Your task to perform on an android device: change alarm snooze length Image 0: 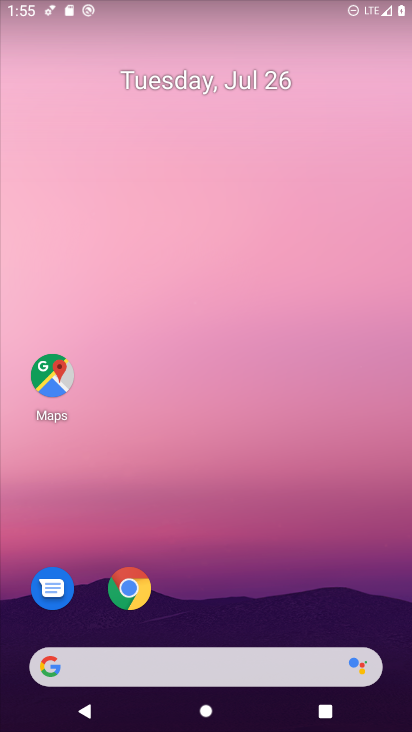
Step 0: drag from (228, 629) to (206, 176)
Your task to perform on an android device: change alarm snooze length Image 1: 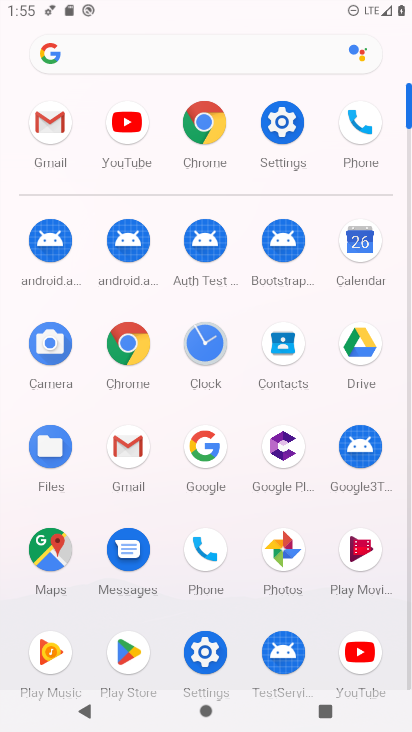
Step 1: click (207, 363)
Your task to perform on an android device: change alarm snooze length Image 2: 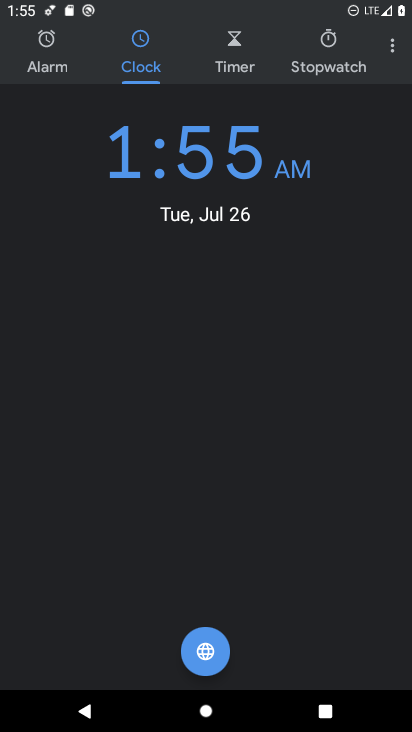
Step 2: click (386, 34)
Your task to perform on an android device: change alarm snooze length Image 3: 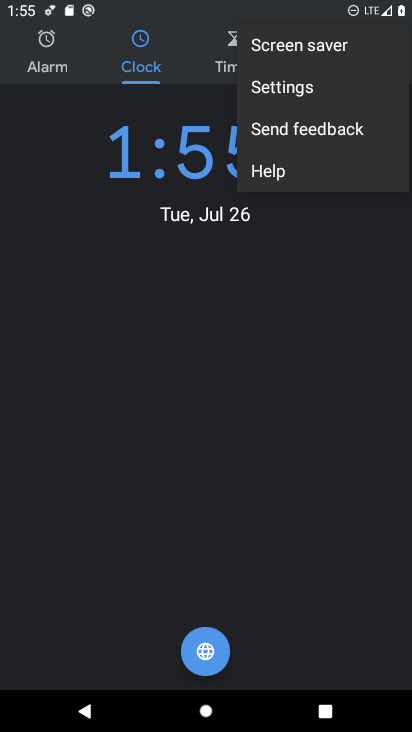
Step 3: click (296, 90)
Your task to perform on an android device: change alarm snooze length Image 4: 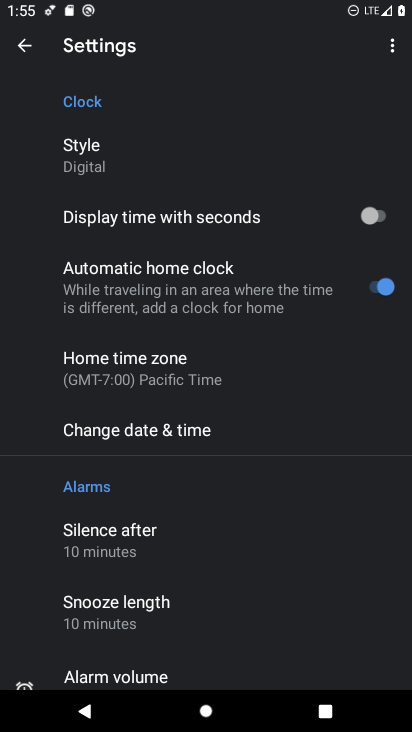
Step 4: click (158, 603)
Your task to perform on an android device: change alarm snooze length Image 5: 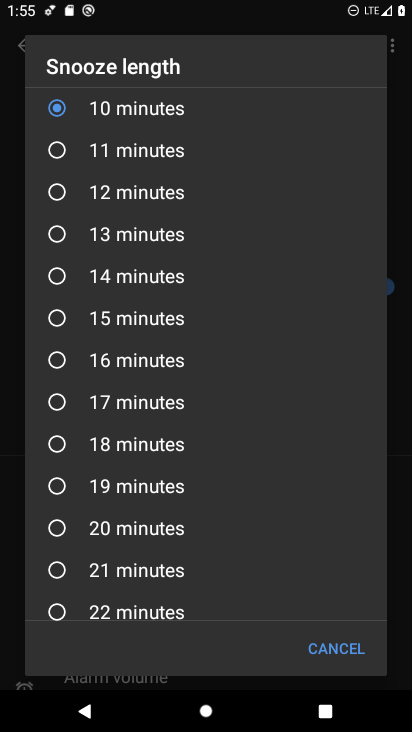
Step 5: click (60, 150)
Your task to perform on an android device: change alarm snooze length Image 6: 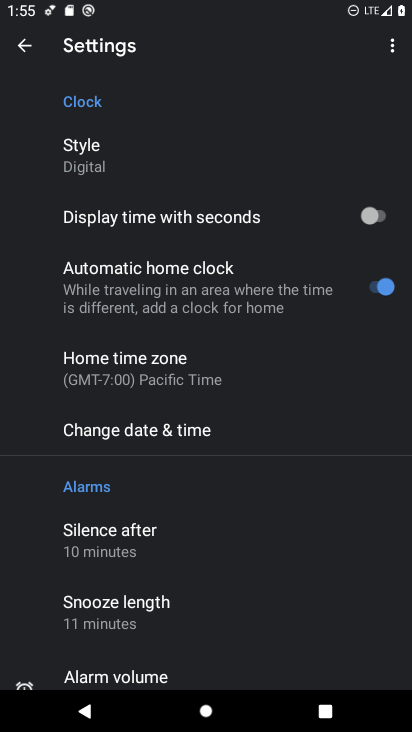
Step 6: task complete